Your task to perform on an android device: stop showing notifications on the lock screen Image 0: 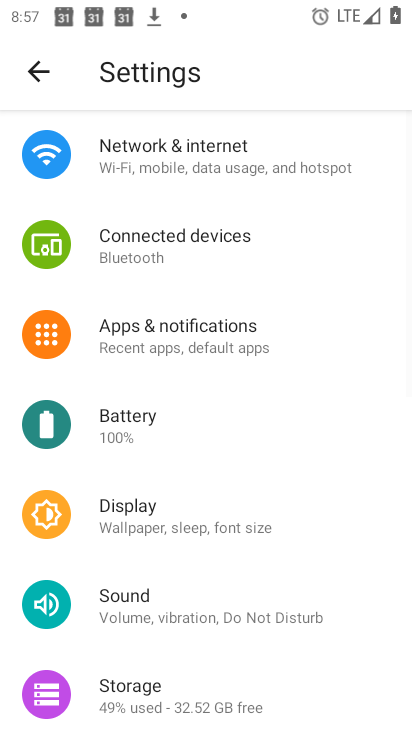
Step 0: press home button
Your task to perform on an android device: stop showing notifications on the lock screen Image 1: 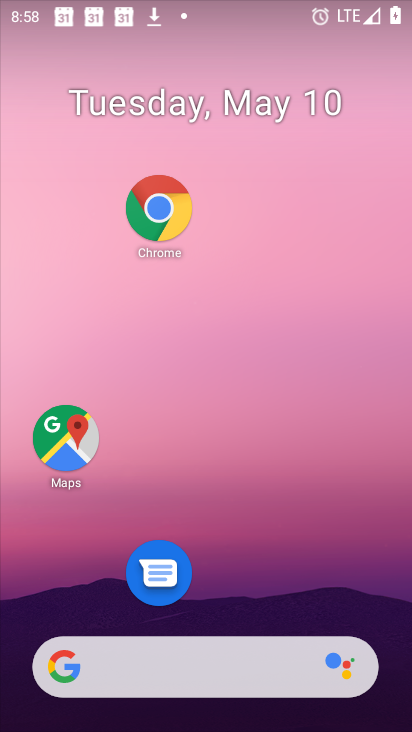
Step 1: drag from (253, 690) to (355, 171)
Your task to perform on an android device: stop showing notifications on the lock screen Image 2: 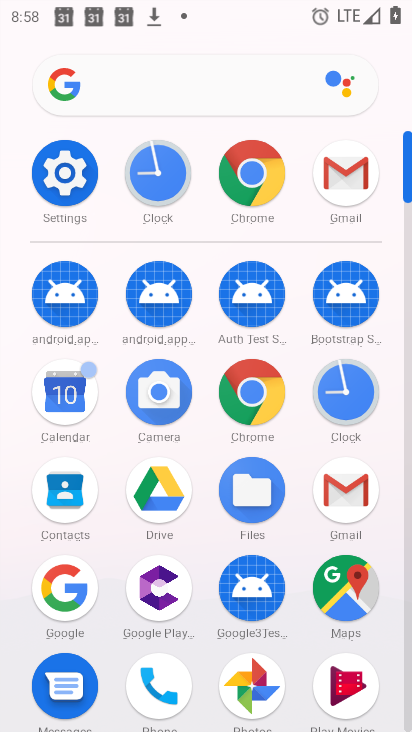
Step 2: click (78, 171)
Your task to perform on an android device: stop showing notifications on the lock screen Image 3: 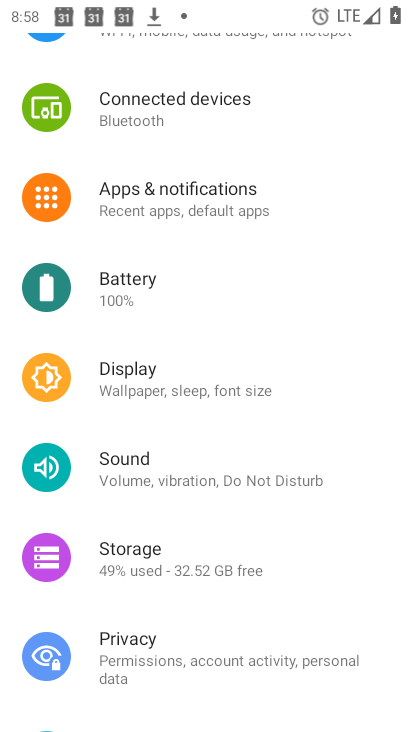
Step 3: drag from (162, 182) to (206, 550)
Your task to perform on an android device: stop showing notifications on the lock screen Image 4: 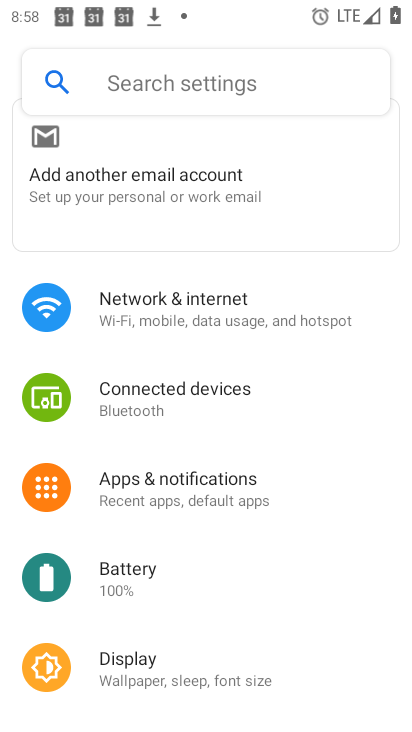
Step 4: click (148, 74)
Your task to perform on an android device: stop showing notifications on the lock screen Image 5: 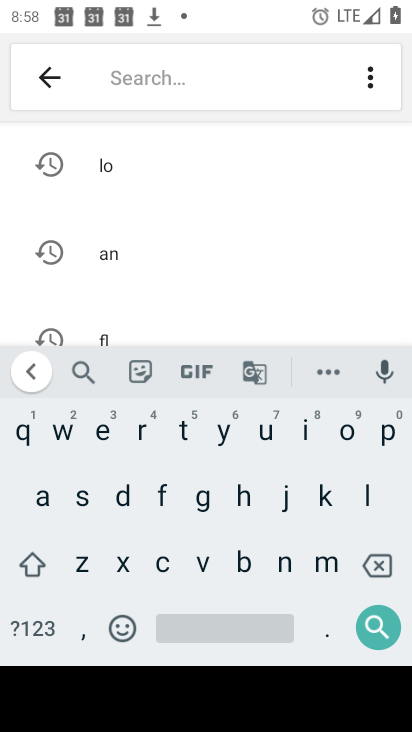
Step 5: click (282, 566)
Your task to perform on an android device: stop showing notifications on the lock screen Image 6: 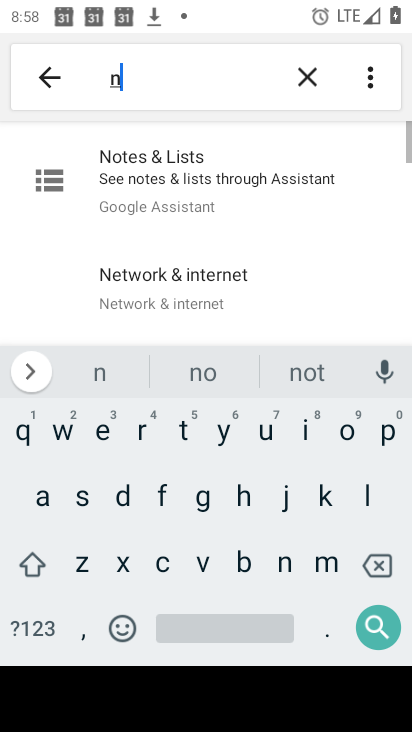
Step 6: click (344, 431)
Your task to perform on an android device: stop showing notifications on the lock screen Image 7: 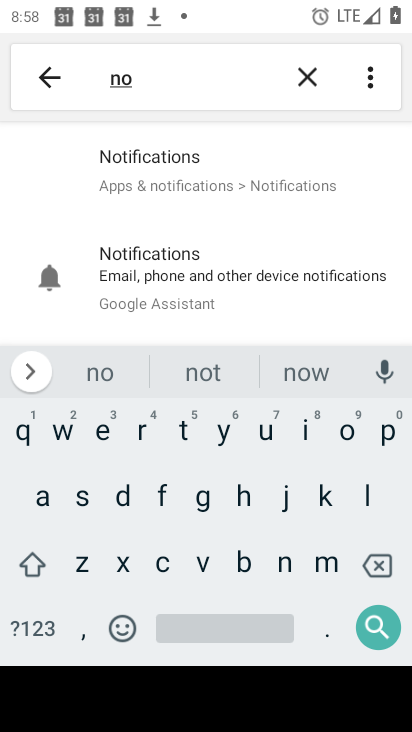
Step 7: click (147, 172)
Your task to perform on an android device: stop showing notifications on the lock screen Image 8: 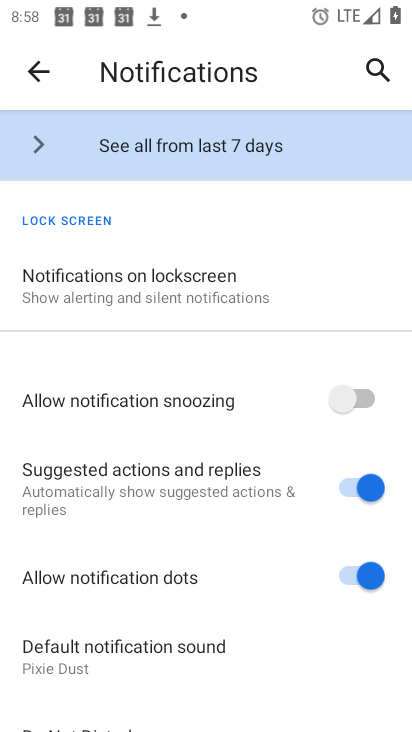
Step 8: click (92, 299)
Your task to perform on an android device: stop showing notifications on the lock screen Image 9: 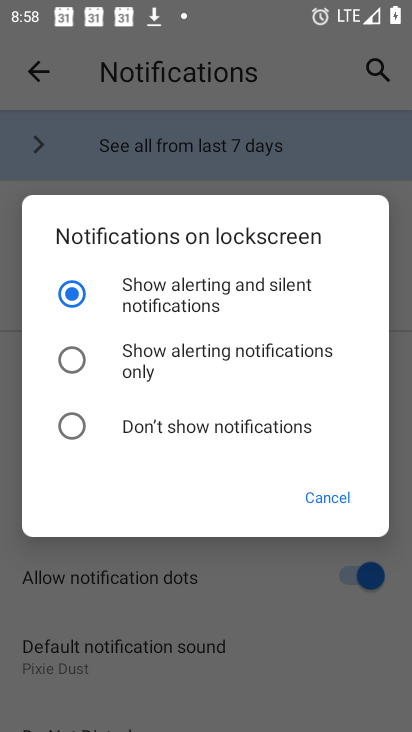
Step 9: click (111, 422)
Your task to perform on an android device: stop showing notifications on the lock screen Image 10: 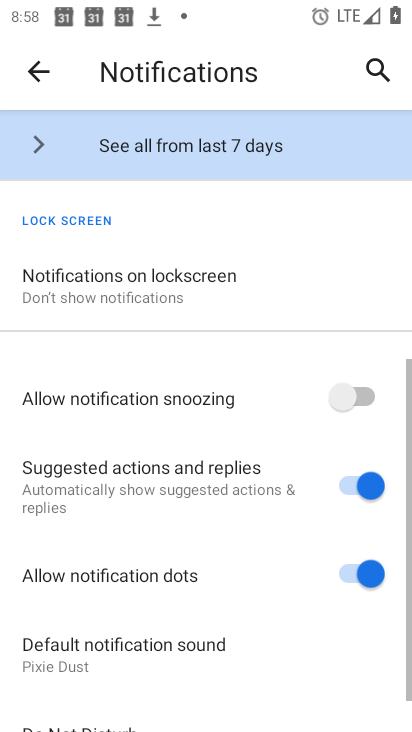
Step 10: task complete